Your task to perform on an android device: open app "DoorDash - Dasher" (install if not already installed) and enter user name: "resistor@inbox.com" and password: "cholera" Image 0: 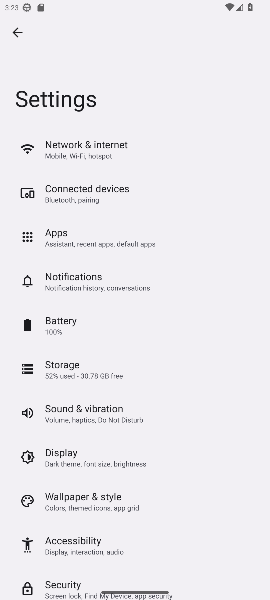
Step 0: press home button
Your task to perform on an android device: open app "DoorDash - Dasher" (install if not already installed) and enter user name: "resistor@inbox.com" and password: "cholera" Image 1: 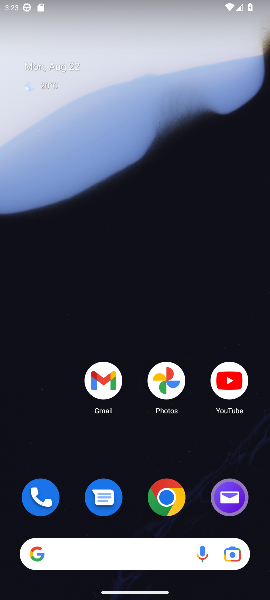
Step 1: drag from (55, 427) to (32, 86)
Your task to perform on an android device: open app "DoorDash - Dasher" (install if not already installed) and enter user name: "resistor@inbox.com" and password: "cholera" Image 2: 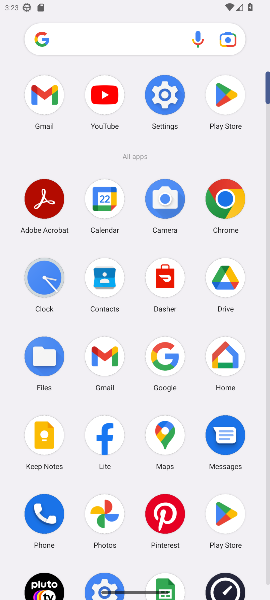
Step 2: click (225, 103)
Your task to perform on an android device: open app "DoorDash - Dasher" (install if not already installed) and enter user name: "resistor@inbox.com" and password: "cholera" Image 3: 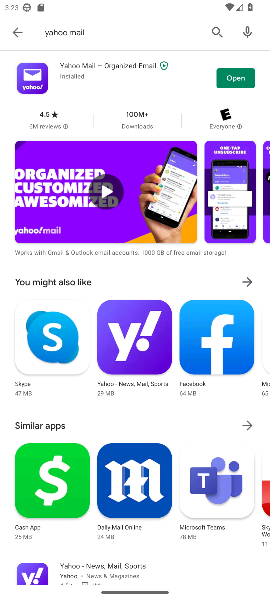
Step 3: press back button
Your task to perform on an android device: open app "DoorDash - Dasher" (install if not already installed) and enter user name: "resistor@inbox.com" and password: "cholera" Image 4: 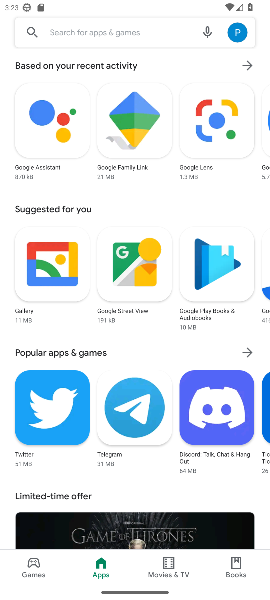
Step 4: click (131, 30)
Your task to perform on an android device: open app "DoorDash - Dasher" (install if not already installed) and enter user name: "resistor@inbox.com" and password: "cholera" Image 5: 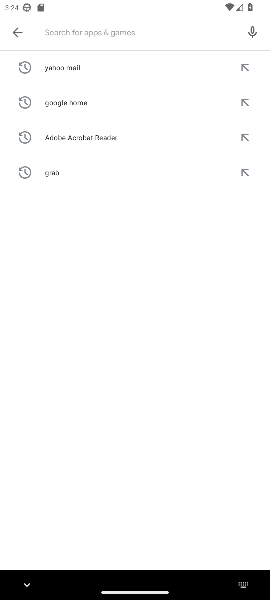
Step 5: type "DoorDash - Dasher"
Your task to perform on an android device: open app "DoorDash - Dasher" (install if not already installed) and enter user name: "resistor@inbox.com" and password: "cholera" Image 6: 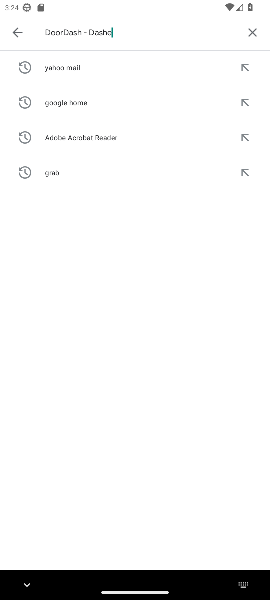
Step 6: press enter
Your task to perform on an android device: open app "DoorDash - Dasher" (install if not already installed) and enter user name: "resistor@inbox.com" and password: "cholera" Image 7: 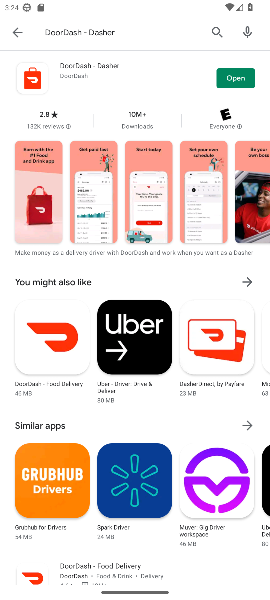
Step 7: click (240, 80)
Your task to perform on an android device: open app "DoorDash - Dasher" (install if not already installed) and enter user name: "resistor@inbox.com" and password: "cholera" Image 8: 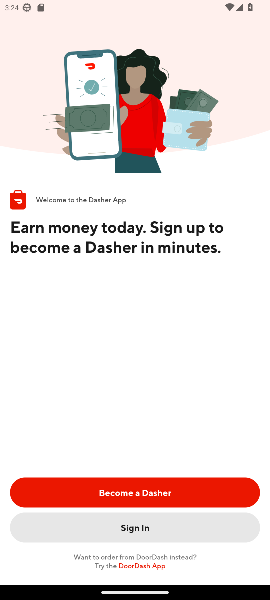
Step 8: click (155, 527)
Your task to perform on an android device: open app "DoorDash - Dasher" (install if not already installed) and enter user name: "resistor@inbox.com" and password: "cholera" Image 9: 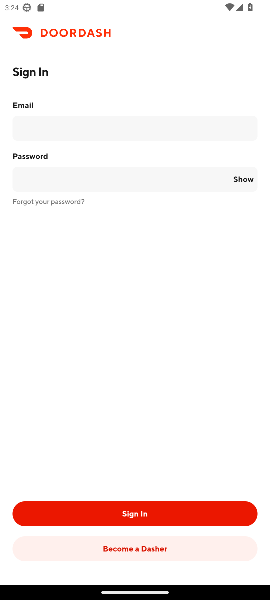
Step 9: click (72, 130)
Your task to perform on an android device: open app "DoorDash - Dasher" (install if not already installed) and enter user name: "resistor@inbox.com" and password: "cholera" Image 10: 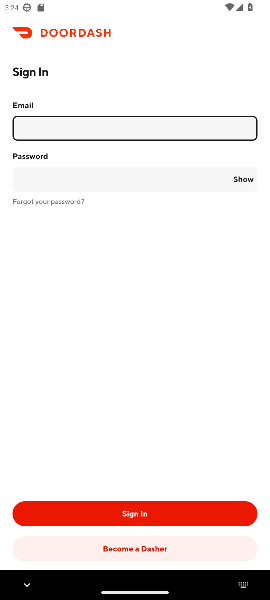
Step 10: type "resistor@inbox.com"
Your task to perform on an android device: open app "DoorDash - Dasher" (install if not already installed) and enter user name: "resistor@inbox.com" and password: "cholera" Image 11: 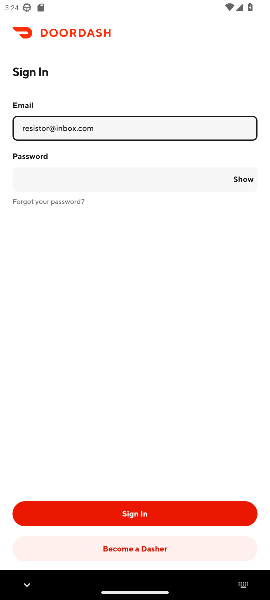
Step 11: click (187, 183)
Your task to perform on an android device: open app "DoorDash - Dasher" (install if not already installed) and enter user name: "resistor@inbox.com" and password: "cholera" Image 12: 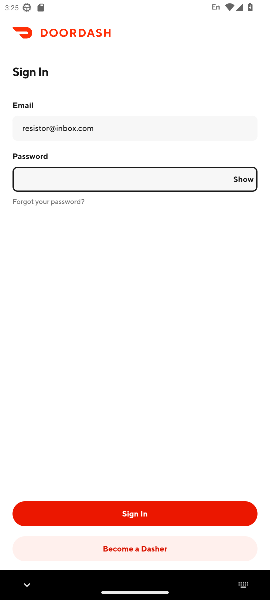
Step 12: type "cholera"
Your task to perform on an android device: open app "DoorDash - Dasher" (install if not already installed) and enter user name: "resistor@inbox.com" and password: "cholera" Image 13: 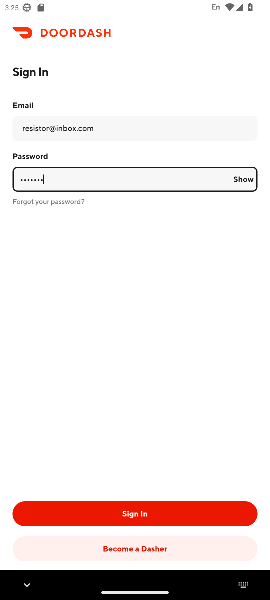
Step 13: task complete